Your task to perform on an android device: turn pop-ups on in chrome Image 0: 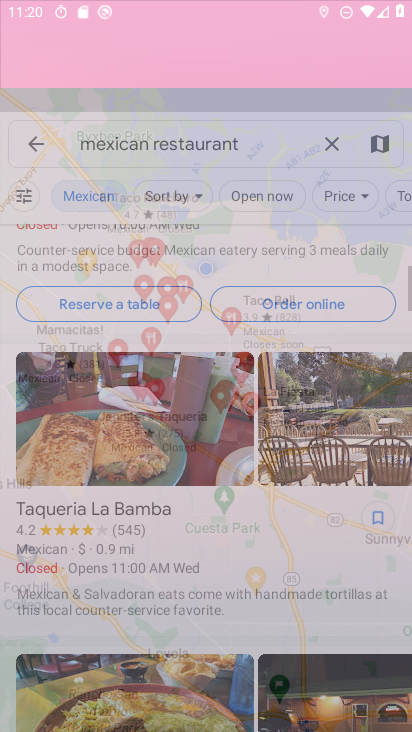
Step 0: click (343, 85)
Your task to perform on an android device: turn pop-ups on in chrome Image 1: 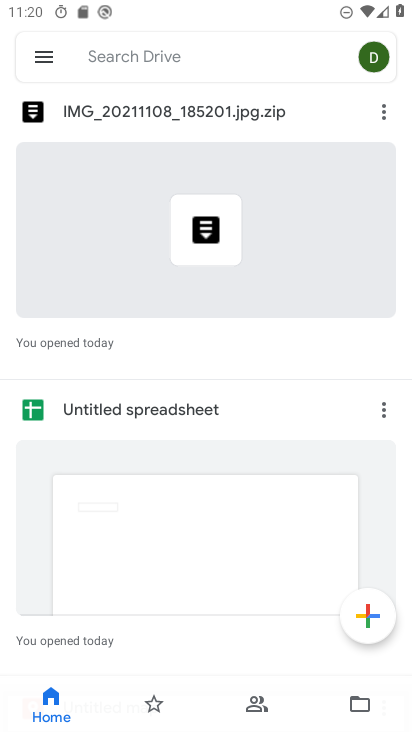
Step 1: drag from (163, 575) to (250, 221)
Your task to perform on an android device: turn pop-ups on in chrome Image 2: 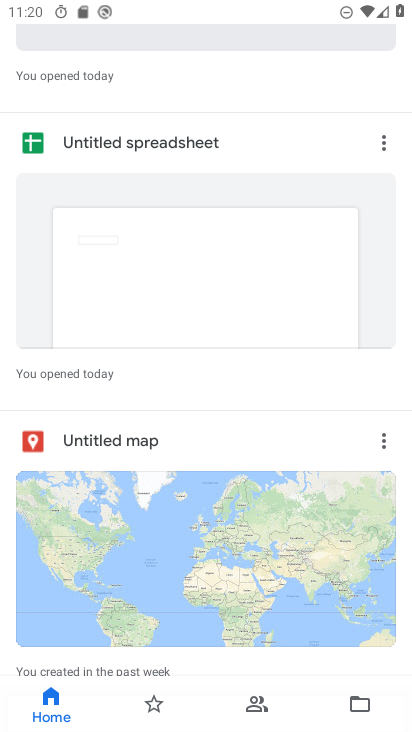
Step 2: drag from (186, 589) to (251, 150)
Your task to perform on an android device: turn pop-ups on in chrome Image 3: 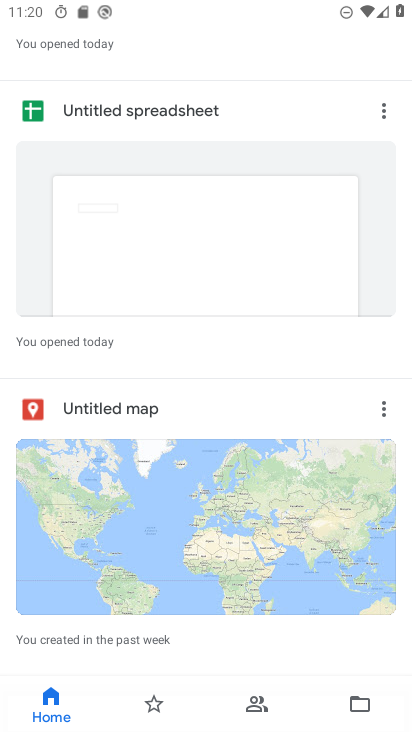
Step 3: drag from (218, 613) to (276, 300)
Your task to perform on an android device: turn pop-ups on in chrome Image 4: 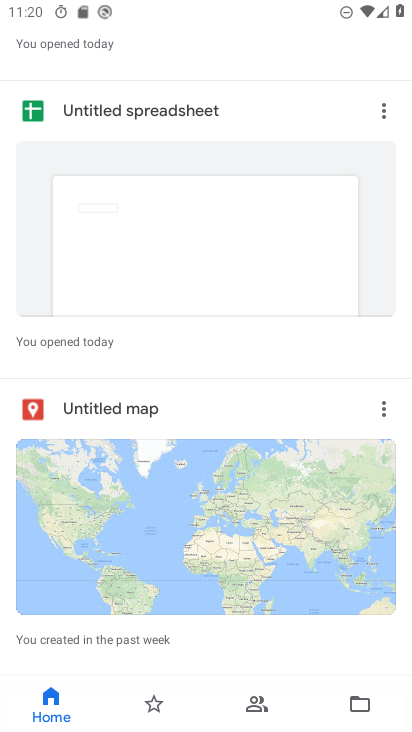
Step 4: drag from (213, 621) to (305, 164)
Your task to perform on an android device: turn pop-ups on in chrome Image 5: 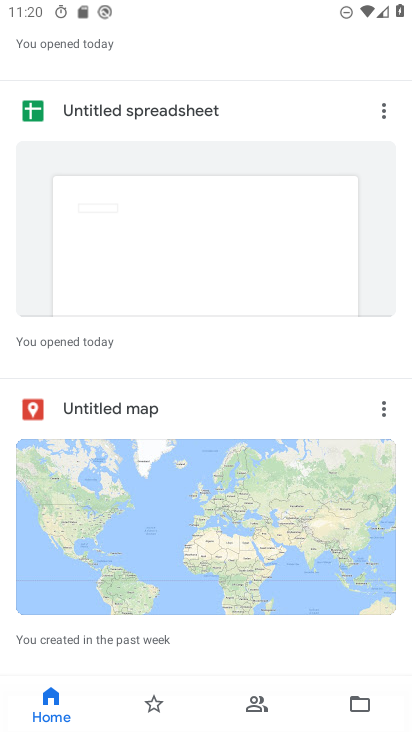
Step 5: drag from (214, 231) to (268, 635)
Your task to perform on an android device: turn pop-ups on in chrome Image 6: 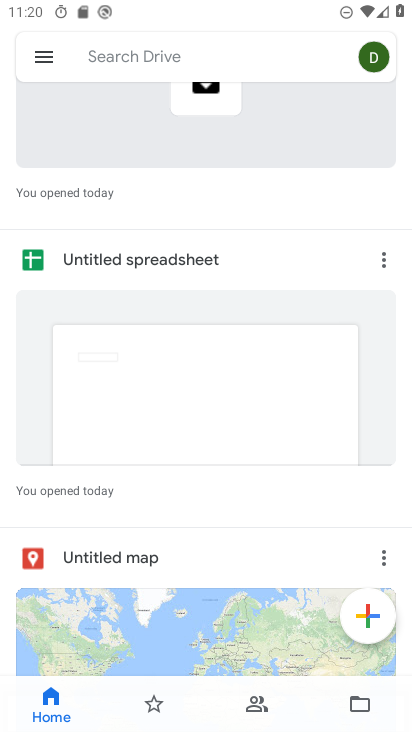
Step 6: press home button
Your task to perform on an android device: turn pop-ups on in chrome Image 7: 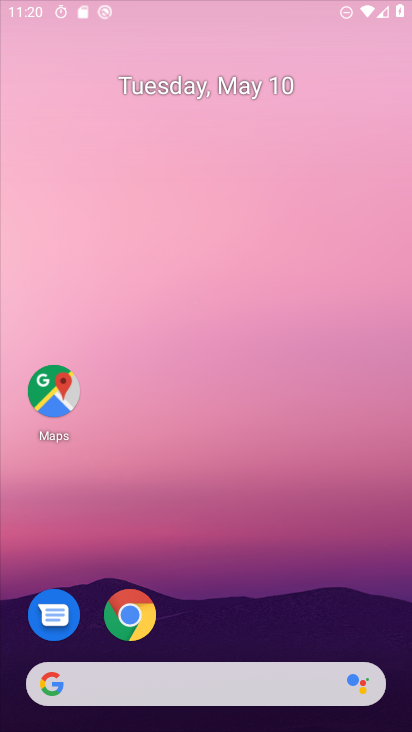
Step 7: drag from (204, 618) to (240, 64)
Your task to perform on an android device: turn pop-ups on in chrome Image 8: 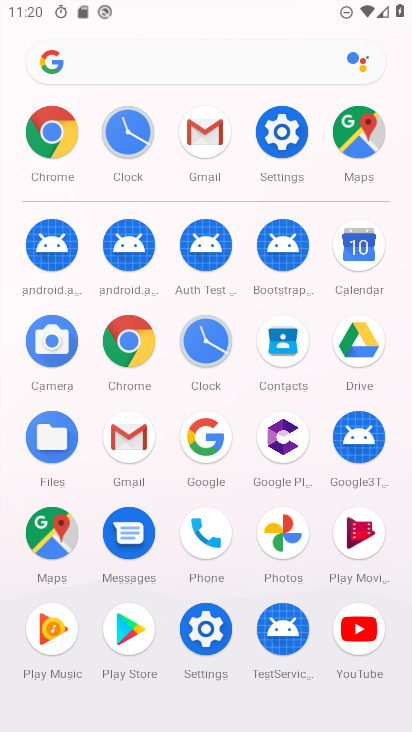
Step 8: click (124, 349)
Your task to perform on an android device: turn pop-ups on in chrome Image 9: 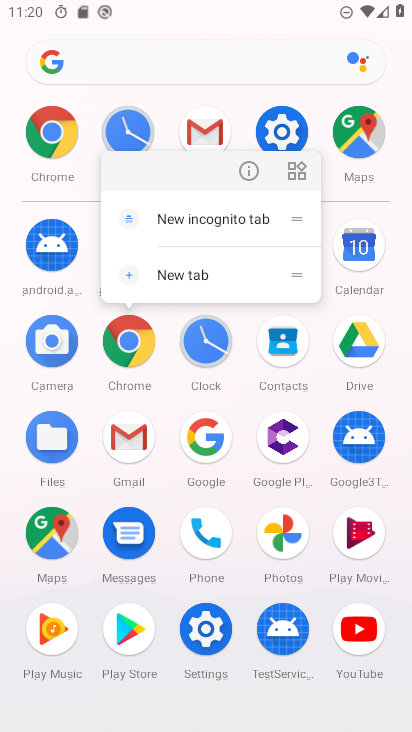
Step 9: click (239, 168)
Your task to perform on an android device: turn pop-ups on in chrome Image 10: 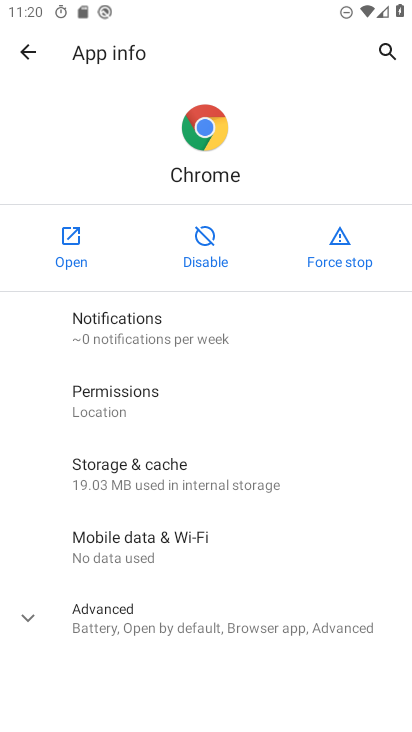
Step 10: click (41, 231)
Your task to perform on an android device: turn pop-ups on in chrome Image 11: 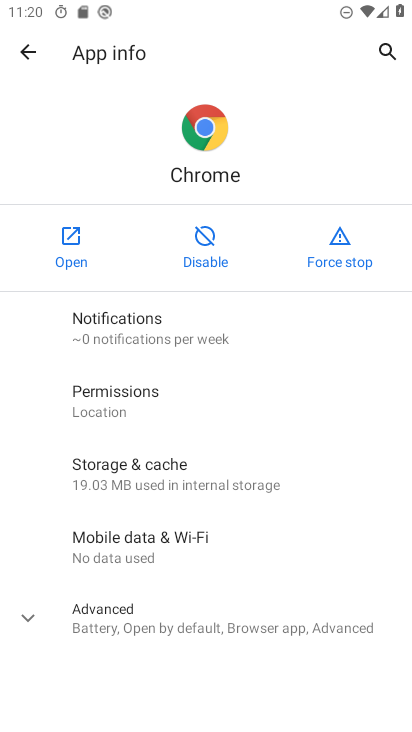
Step 11: click (40, 231)
Your task to perform on an android device: turn pop-ups on in chrome Image 12: 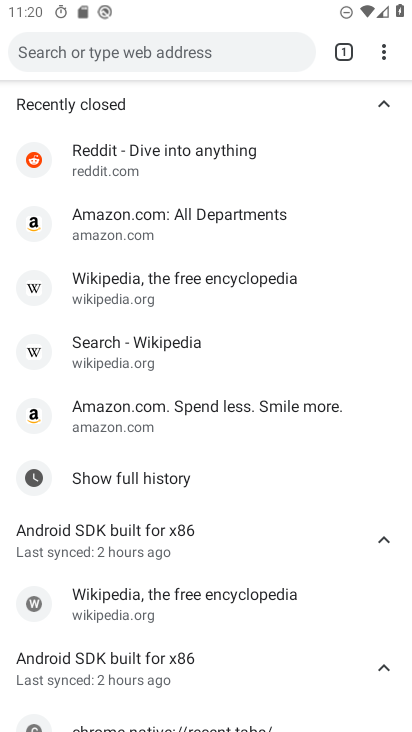
Step 12: drag from (197, 516) to (333, 201)
Your task to perform on an android device: turn pop-ups on in chrome Image 13: 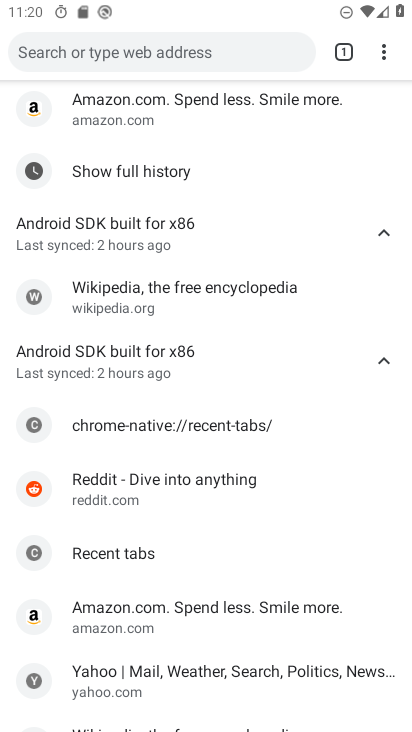
Step 13: drag from (153, 587) to (280, 201)
Your task to perform on an android device: turn pop-ups on in chrome Image 14: 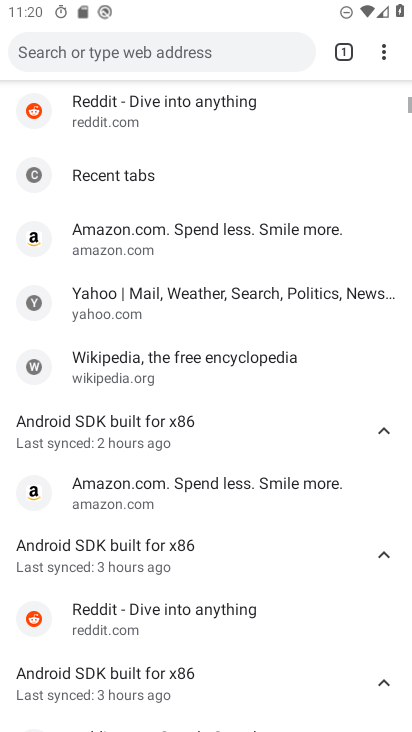
Step 14: drag from (217, 251) to (216, 634)
Your task to perform on an android device: turn pop-ups on in chrome Image 15: 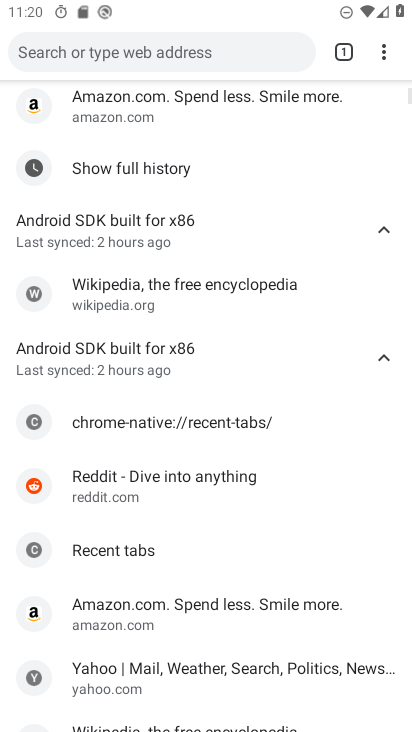
Step 15: drag from (386, 47) to (214, 441)
Your task to perform on an android device: turn pop-ups on in chrome Image 16: 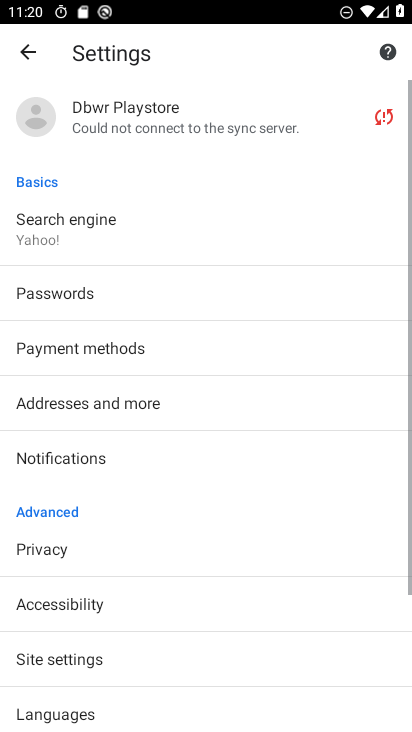
Step 16: drag from (212, 418) to (271, 45)
Your task to perform on an android device: turn pop-ups on in chrome Image 17: 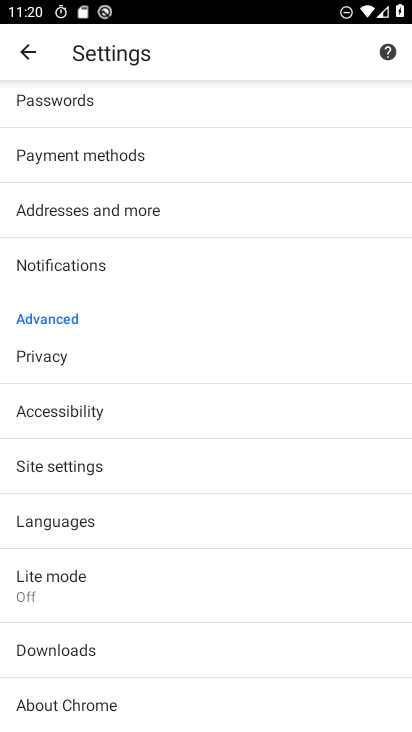
Step 17: click (66, 466)
Your task to perform on an android device: turn pop-ups on in chrome Image 18: 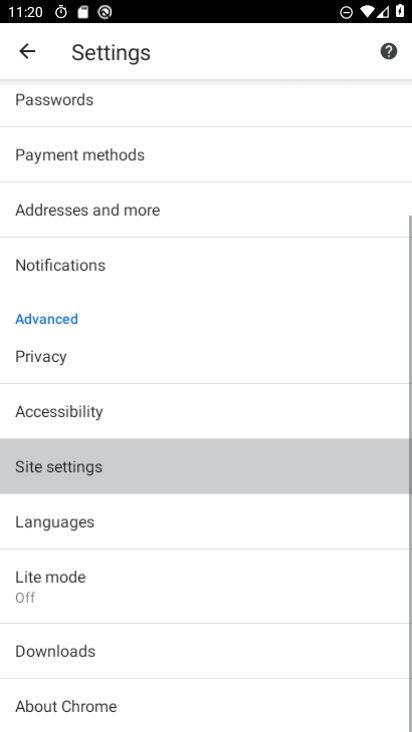
Step 18: drag from (73, 462) to (254, 19)
Your task to perform on an android device: turn pop-ups on in chrome Image 19: 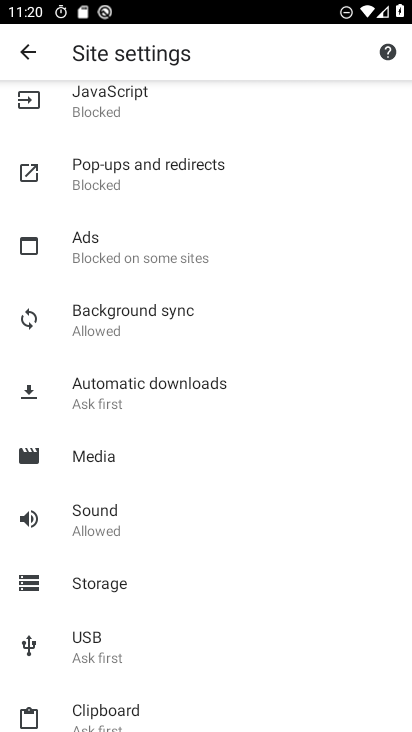
Step 19: click (180, 184)
Your task to perform on an android device: turn pop-ups on in chrome Image 20: 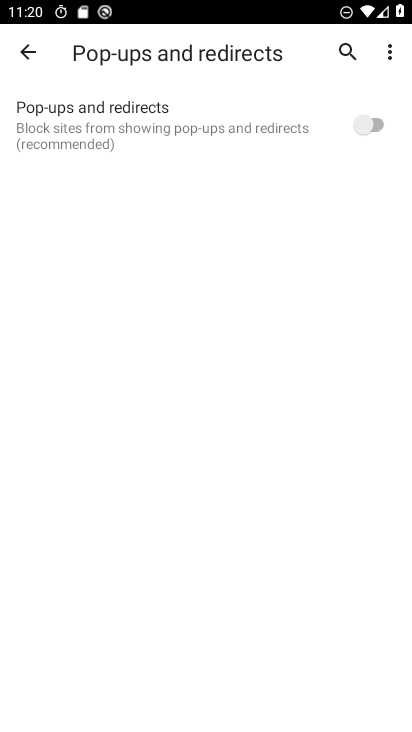
Step 20: click (334, 120)
Your task to perform on an android device: turn pop-ups on in chrome Image 21: 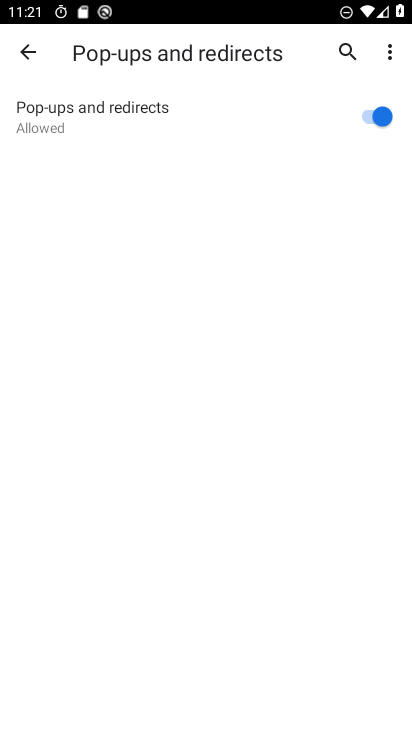
Step 21: task complete